Your task to perform on an android device: open the mobile data screen to see how much data has been used Image 0: 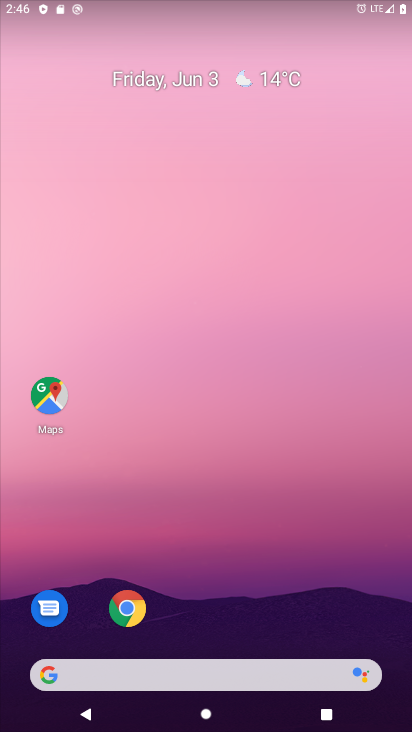
Step 0: drag from (209, 665) to (208, 221)
Your task to perform on an android device: open the mobile data screen to see how much data has been used Image 1: 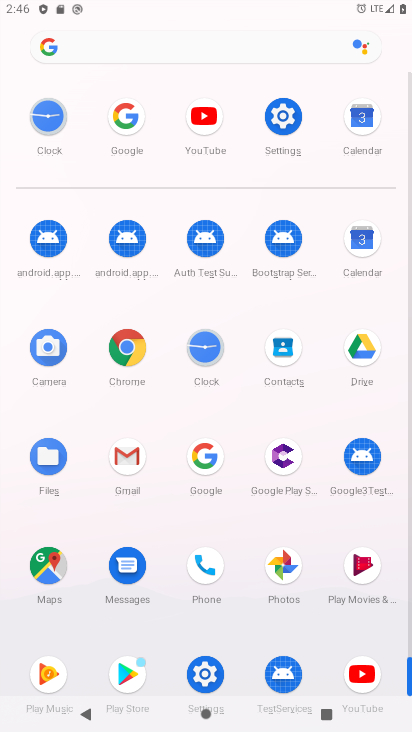
Step 1: click (275, 122)
Your task to perform on an android device: open the mobile data screen to see how much data has been used Image 2: 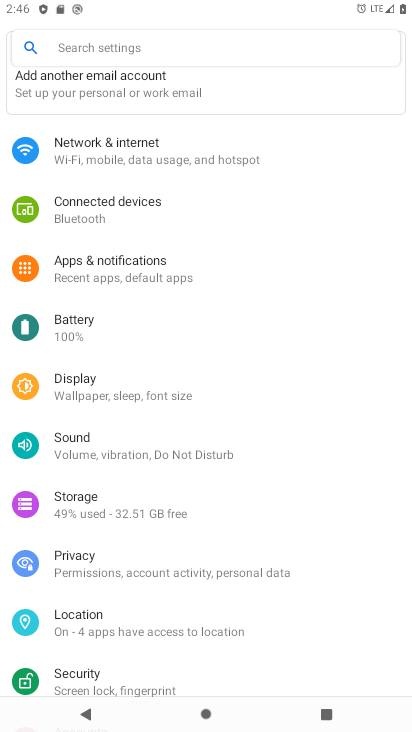
Step 2: click (137, 149)
Your task to perform on an android device: open the mobile data screen to see how much data has been used Image 3: 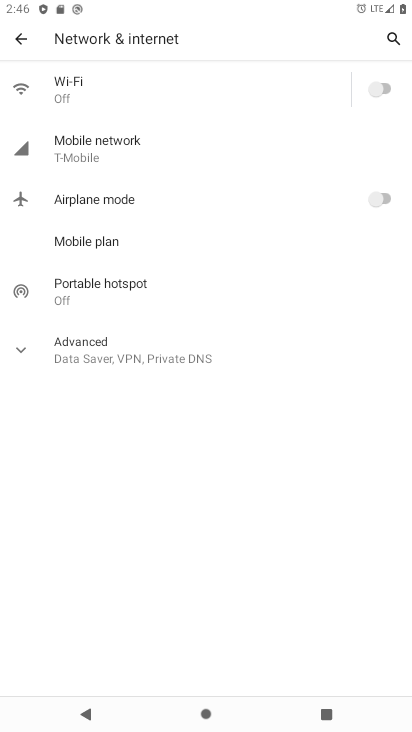
Step 3: click (115, 142)
Your task to perform on an android device: open the mobile data screen to see how much data has been used Image 4: 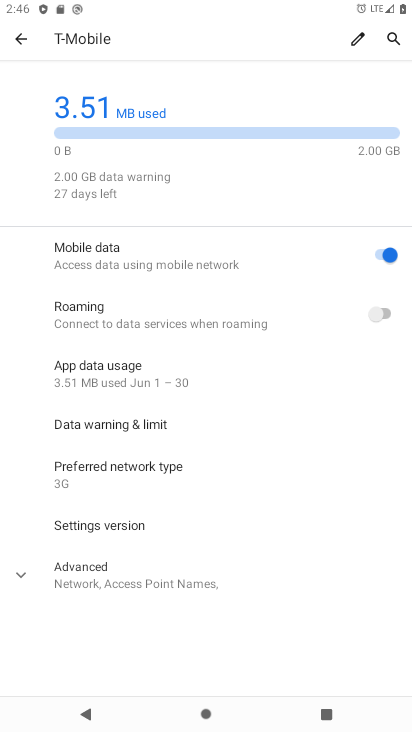
Step 4: task complete